Your task to perform on an android device: Open maps Image 0: 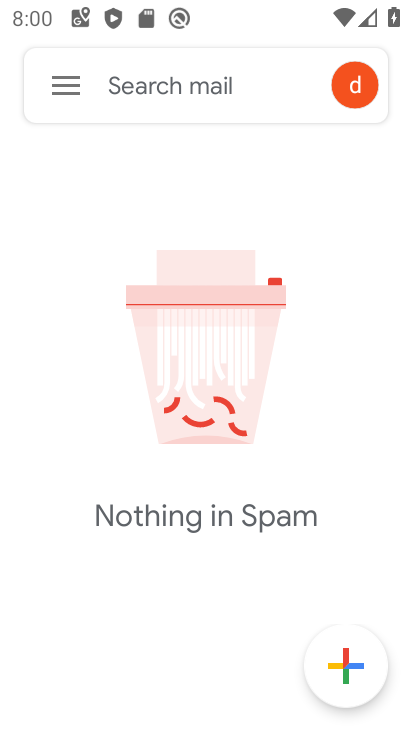
Step 0: press home button
Your task to perform on an android device: Open maps Image 1: 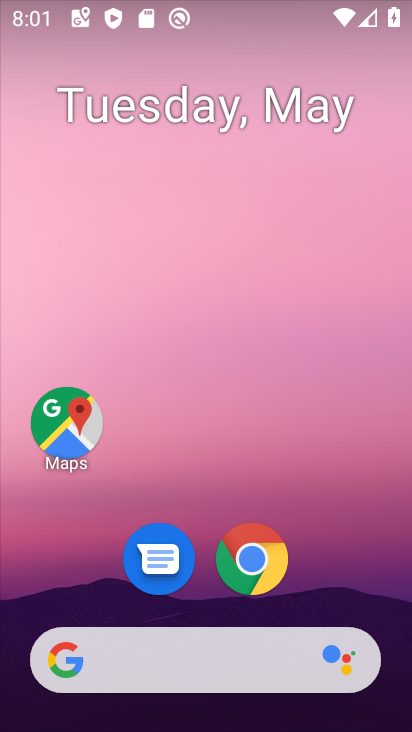
Step 1: drag from (383, 511) to (368, 10)
Your task to perform on an android device: Open maps Image 2: 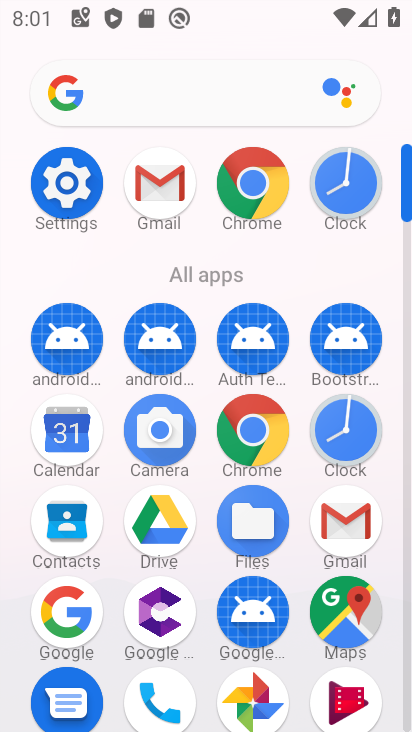
Step 2: click (352, 609)
Your task to perform on an android device: Open maps Image 3: 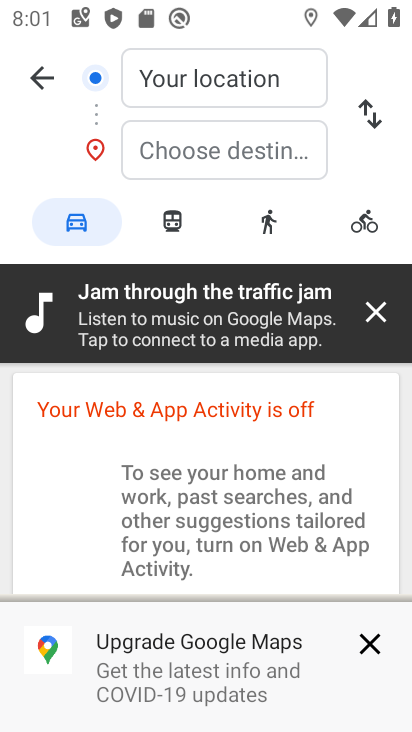
Step 3: task complete